Your task to perform on an android device: Check the weather Image 0: 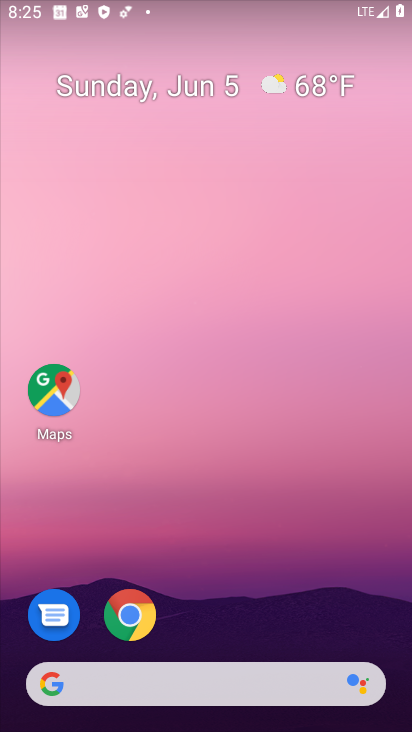
Step 0: click (294, 89)
Your task to perform on an android device: Check the weather Image 1: 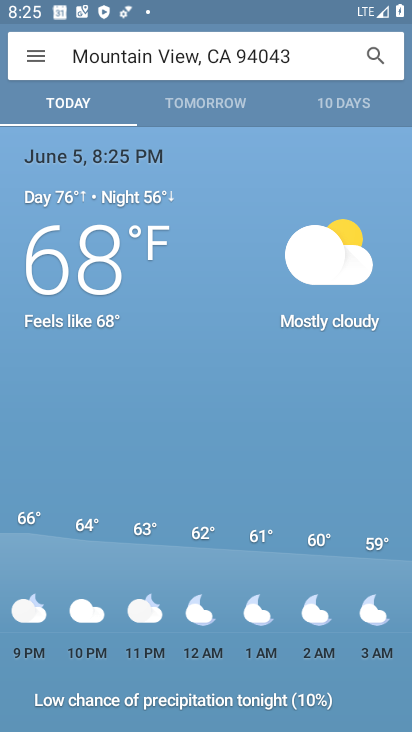
Step 1: task complete